Your task to perform on an android device: open a bookmark in the chrome app Image 0: 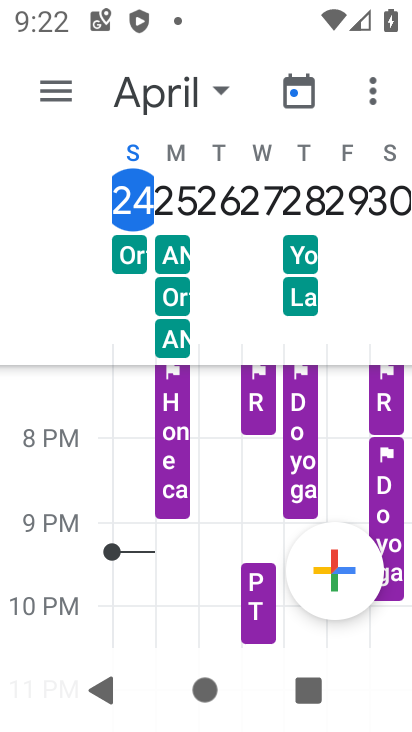
Step 0: press home button
Your task to perform on an android device: open a bookmark in the chrome app Image 1: 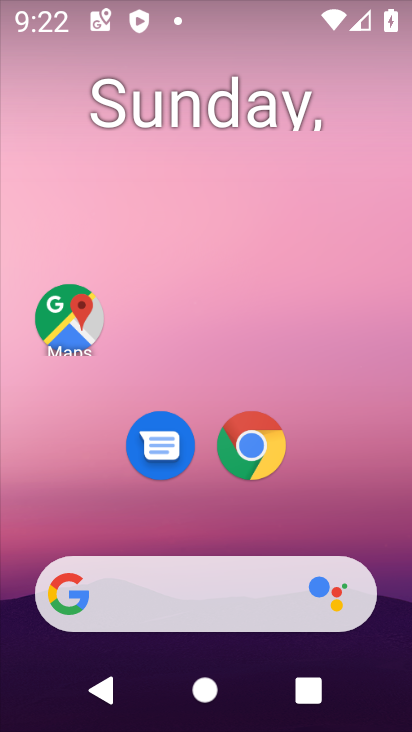
Step 1: click (250, 445)
Your task to perform on an android device: open a bookmark in the chrome app Image 2: 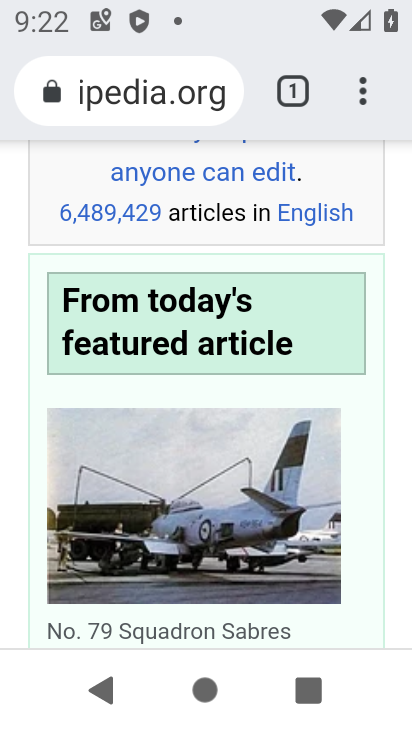
Step 2: click (361, 94)
Your task to perform on an android device: open a bookmark in the chrome app Image 3: 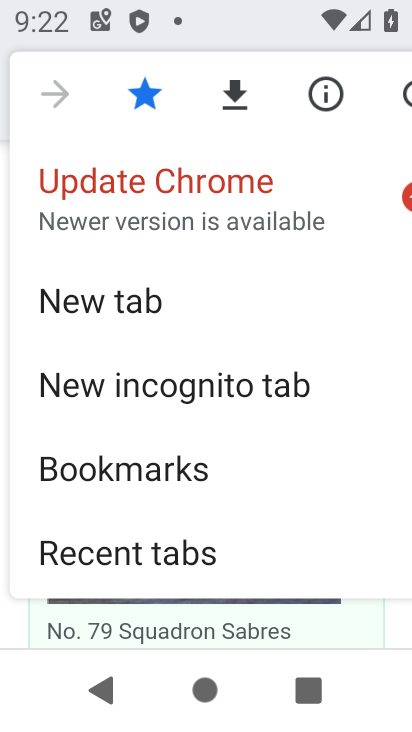
Step 3: click (94, 480)
Your task to perform on an android device: open a bookmark in the chrome app Image 4: 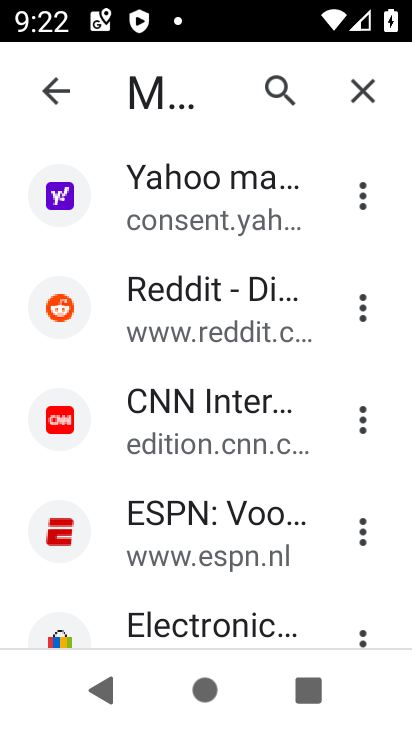
Step 4: task complete